Your task to perform on an android device: toggle javascript in the chrome app Image 0: 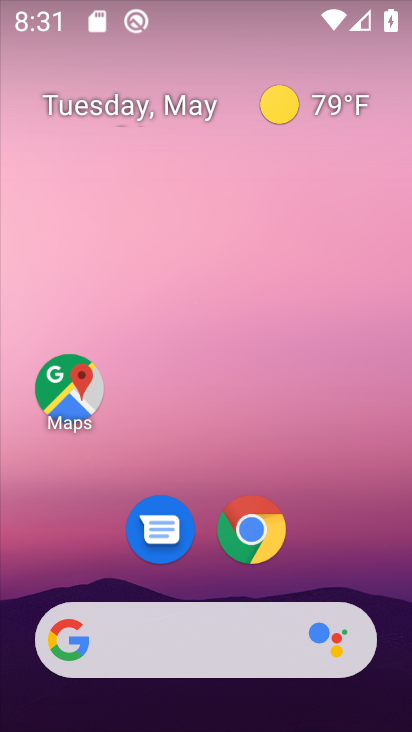
Step 0: click (248, 529)
Your task to perform on an android device: toggle javascript in the chrome app Image 1: 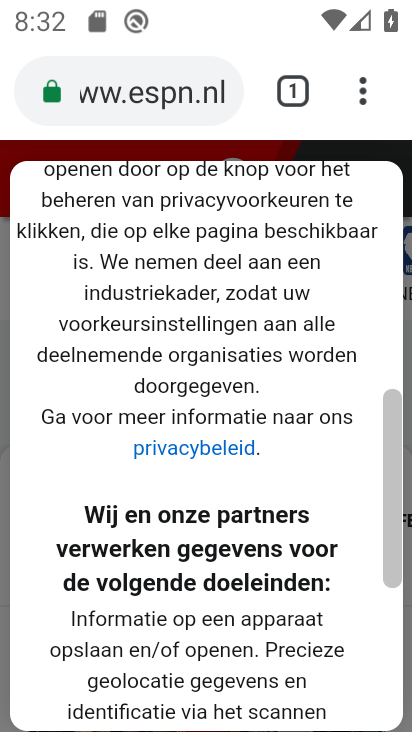
Step 1: drag from (367, 89) to (161, 547)
Your task to perform on an android device: toggle javascript in the chrome app Image 2: 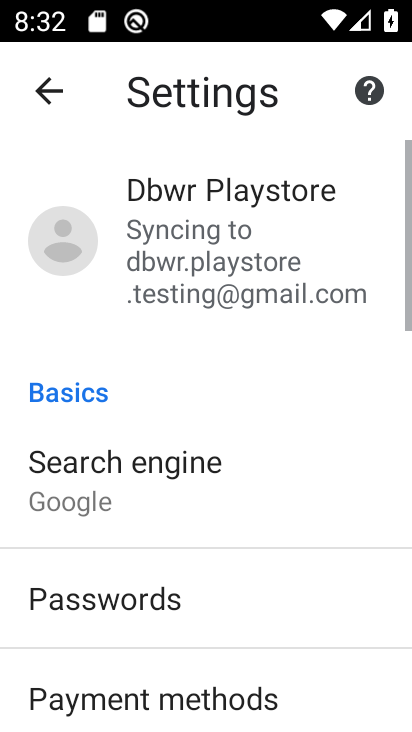
Step 2: drag from (161, 542) to (236, 117)
Your task to perform on an android device: toggle javascript in the chrome app Image 3: 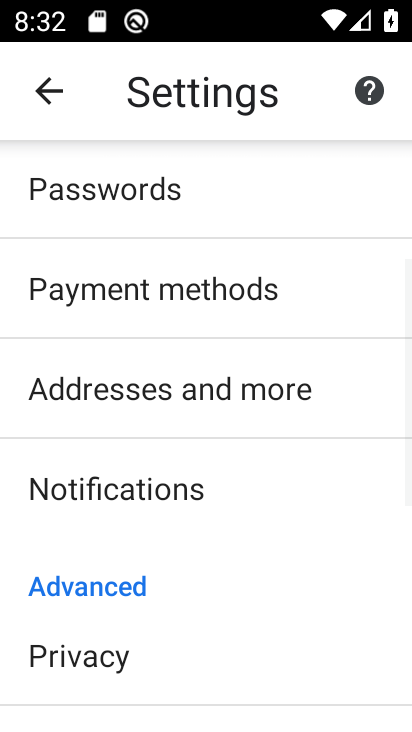
Step 3: drag from (163, 581) to (265, 147)
Your task to perform on an android device: toggle javascript in the chrome app Image 4: 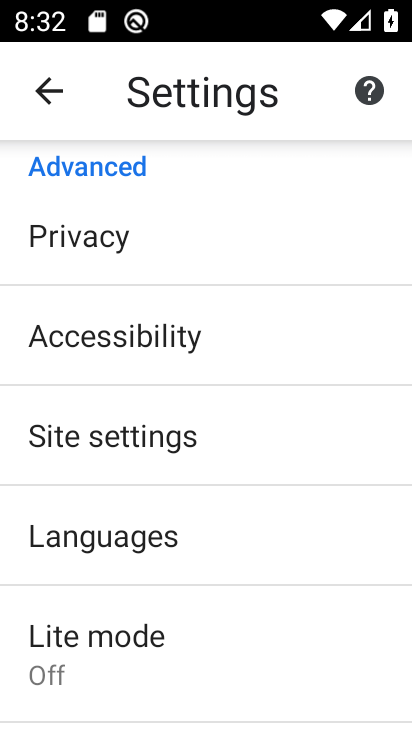
Step 4: click (116, 418)
Your task to perform on an android device: toggle javascript in the chrome app Image 5: 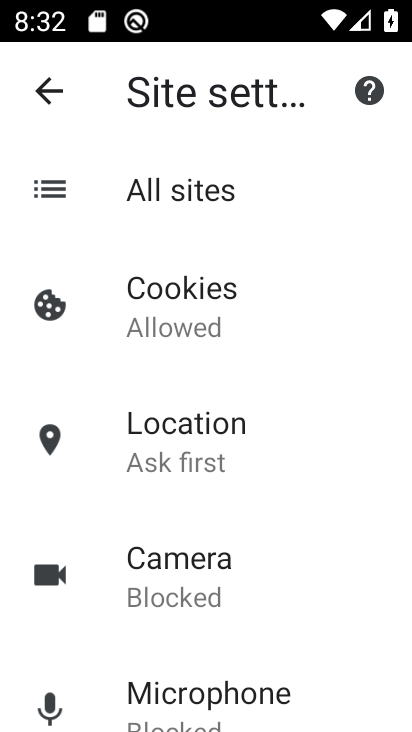
Step 5: drag from (268, 653) to (307, 194)
Your task to perform on an android device: toggle javascript in the chrome app Image 6: 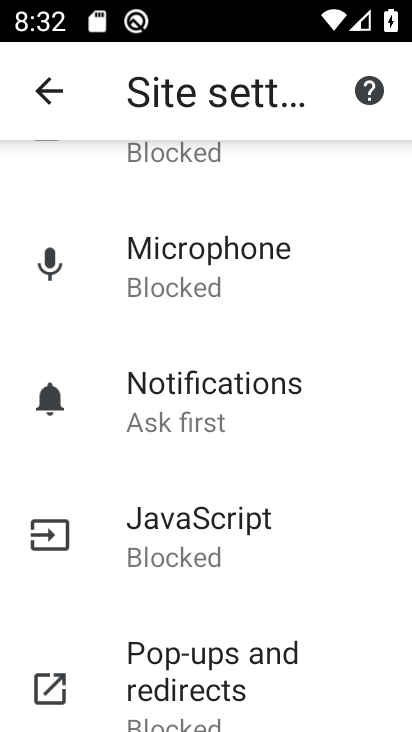
Step 6: click (153, 514)
Your task to perform on an android device: toggle javascript in the chrome app Image 7: 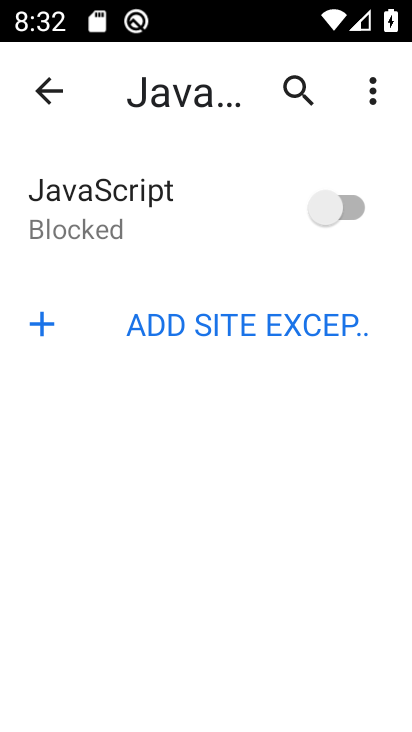
Step 7: click (317, 211)
Your task to perform on an android device: toggle javascript in the chrome app Image 8: 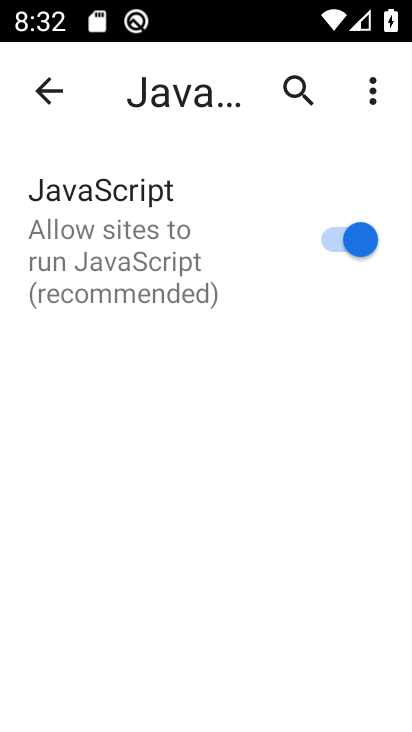
Step 8: task complete